Your task to perform on an android device: View the shopping cart on costco. Search for logitech g pro on costco, select the first entry, add it to the cart, then select checkout. Image 0: 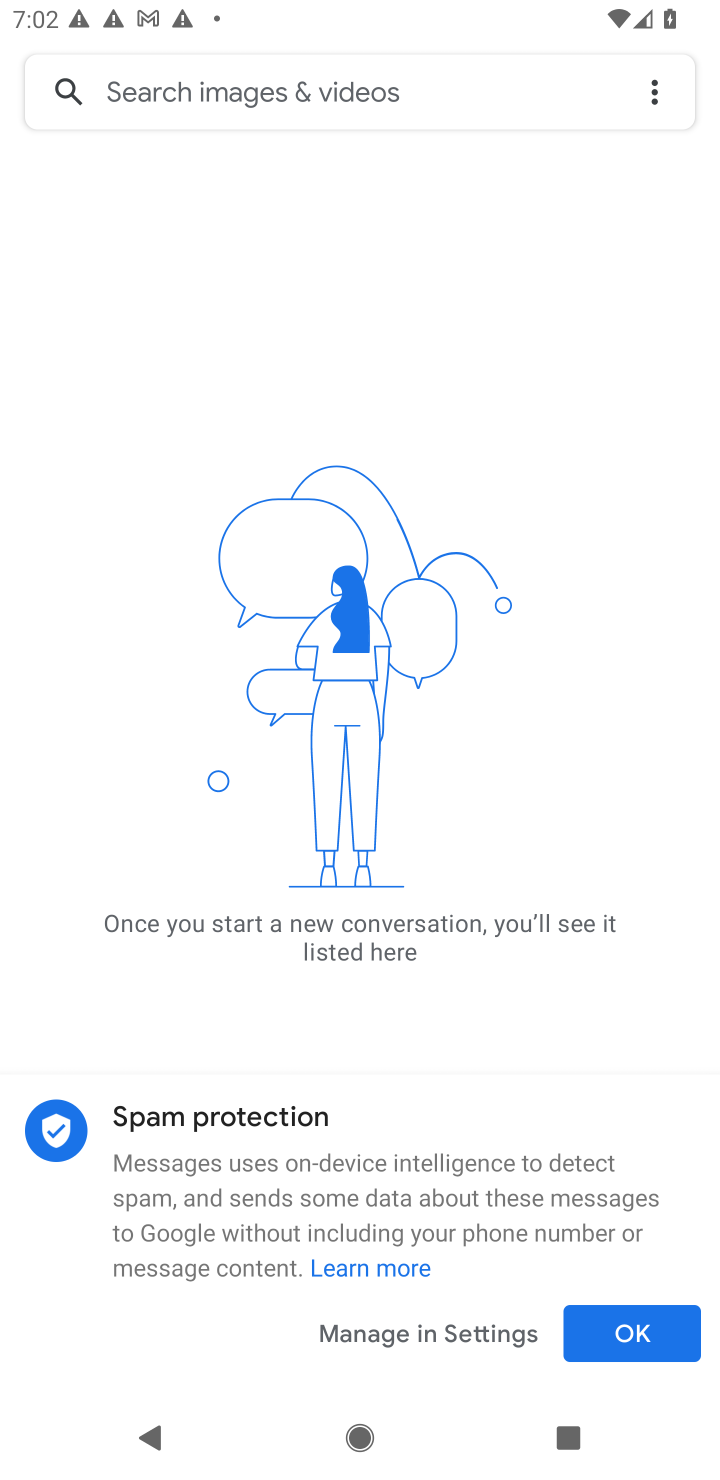
Step 0: press home button
Your task to perform on an android device: View the shopping cart on costco. Search for logitech g pro on costco, select the first entry, add it to the cart, then select checkout. Image 1: 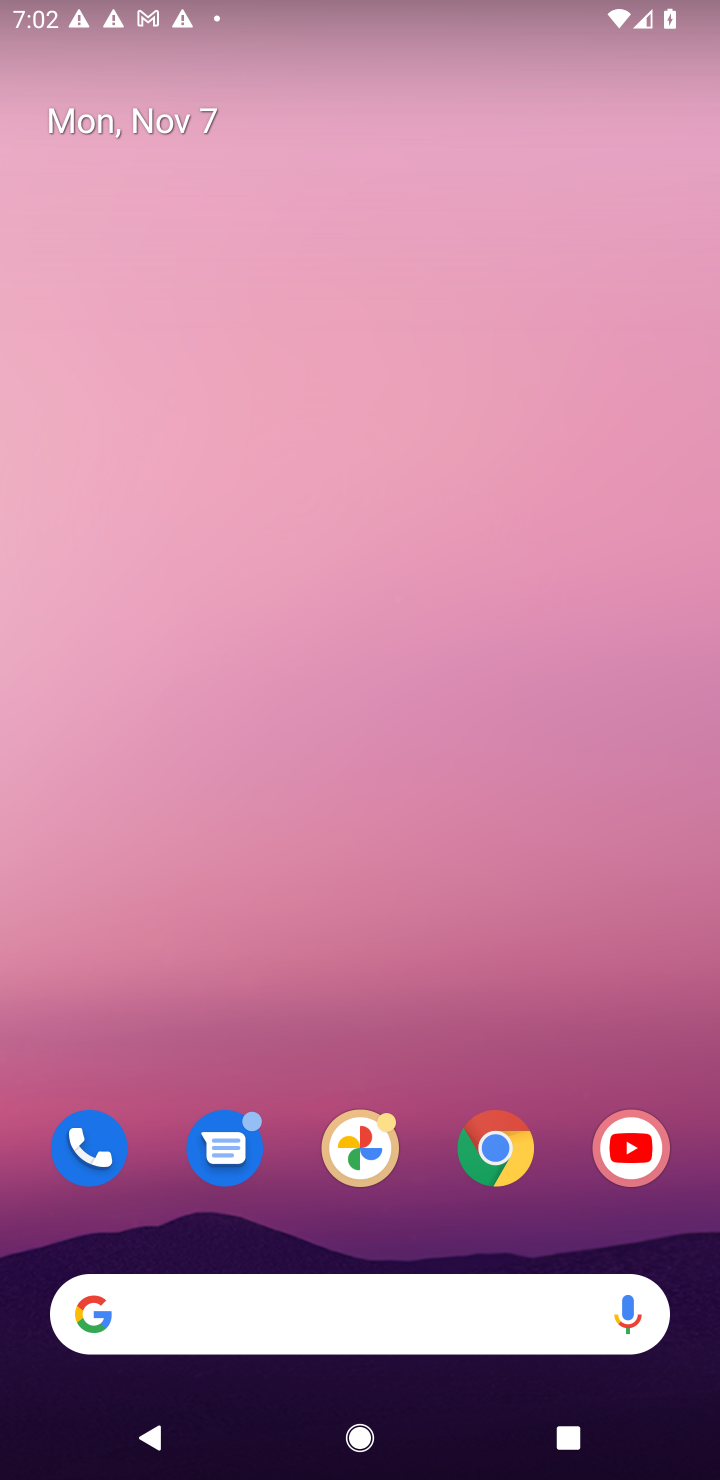
Step 1: click (500, 1152)
Your task to perform on an android device: View the shopping cart on costco. Search for logitech g pro on costco, select the first entry, add it to the cart, then select checkout. Image 2: 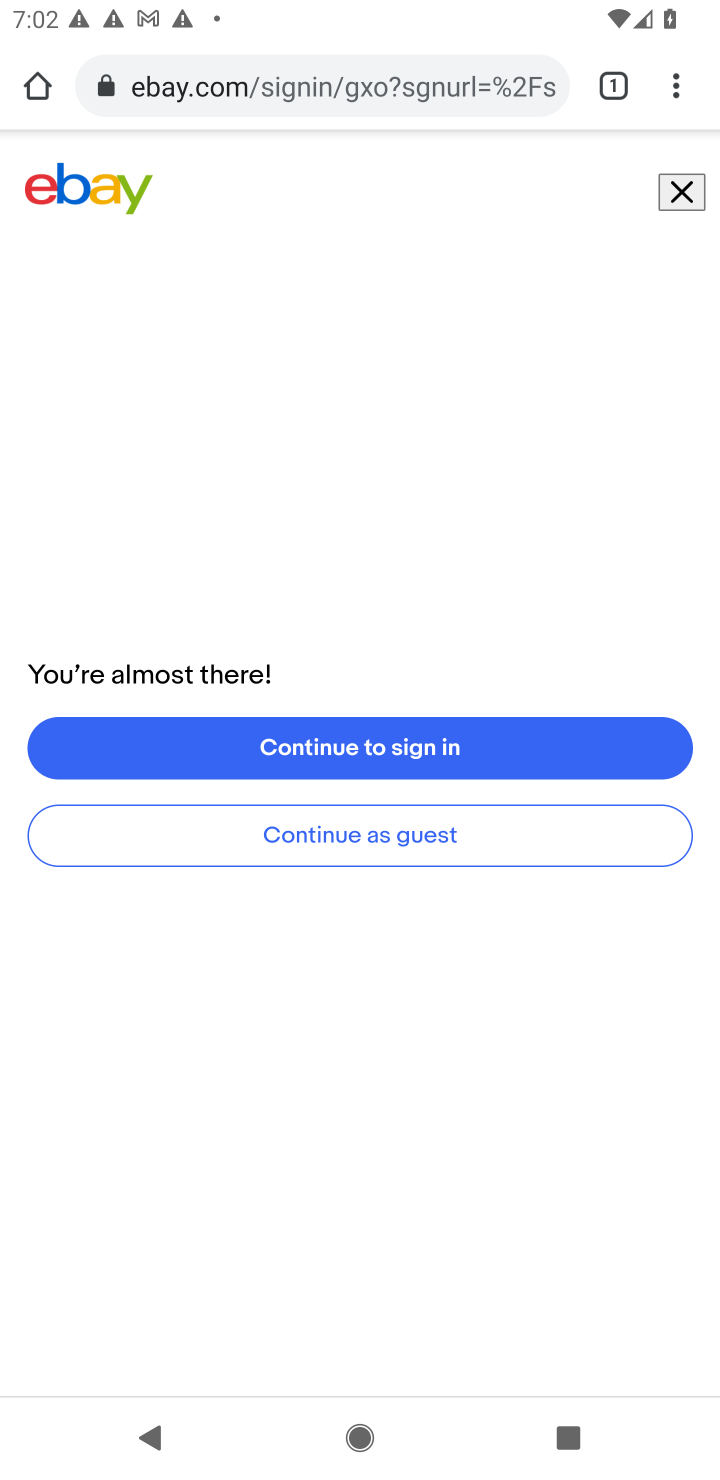
Step 2: click (398, 83)
Your task to perform on an android device: View the shopping cart on costco. Search for logitech g pro on costco, select the first entry, add it to the cart, then select checkout. Image 3: 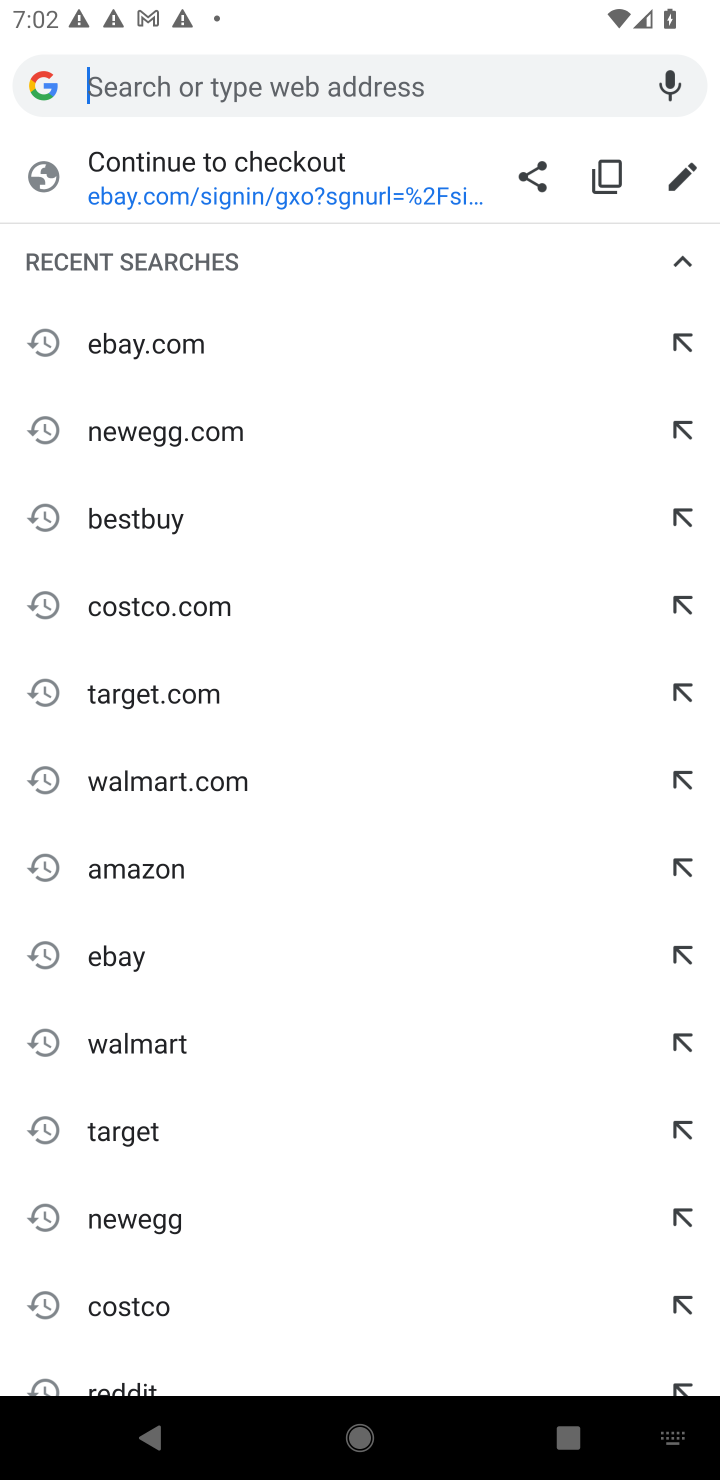
Step 3: click (202, 609)
Your task to perform on an android device: View the shopping cart on costco. Search for logitech g pro on costco, select the first entry, add it to the cart, then select checkout. Image 4: 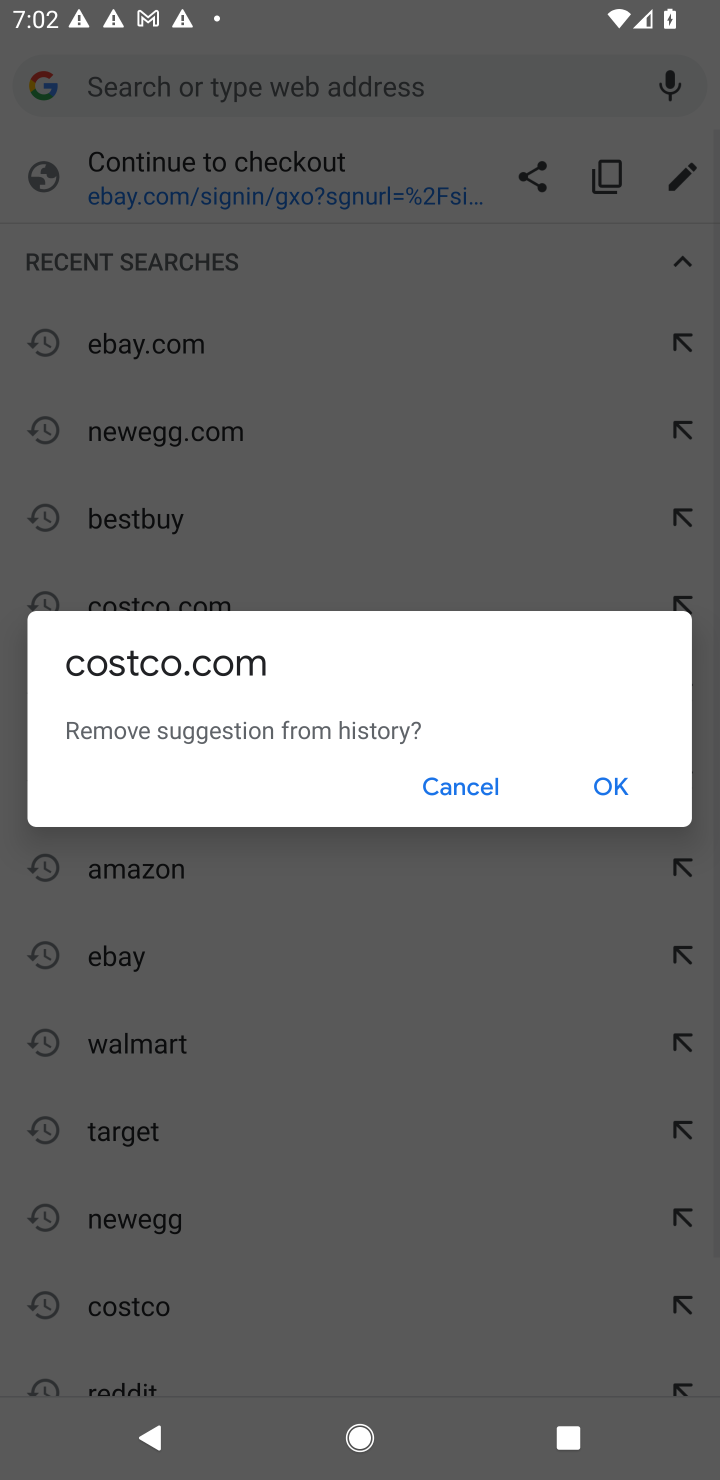
Step 4: click (604, 781)
Your task to perform on an android device: View the shopping cart on costco. Search for logitech g pro on costco, select the first entry, add it to the cart, then select checkout. Image 5: 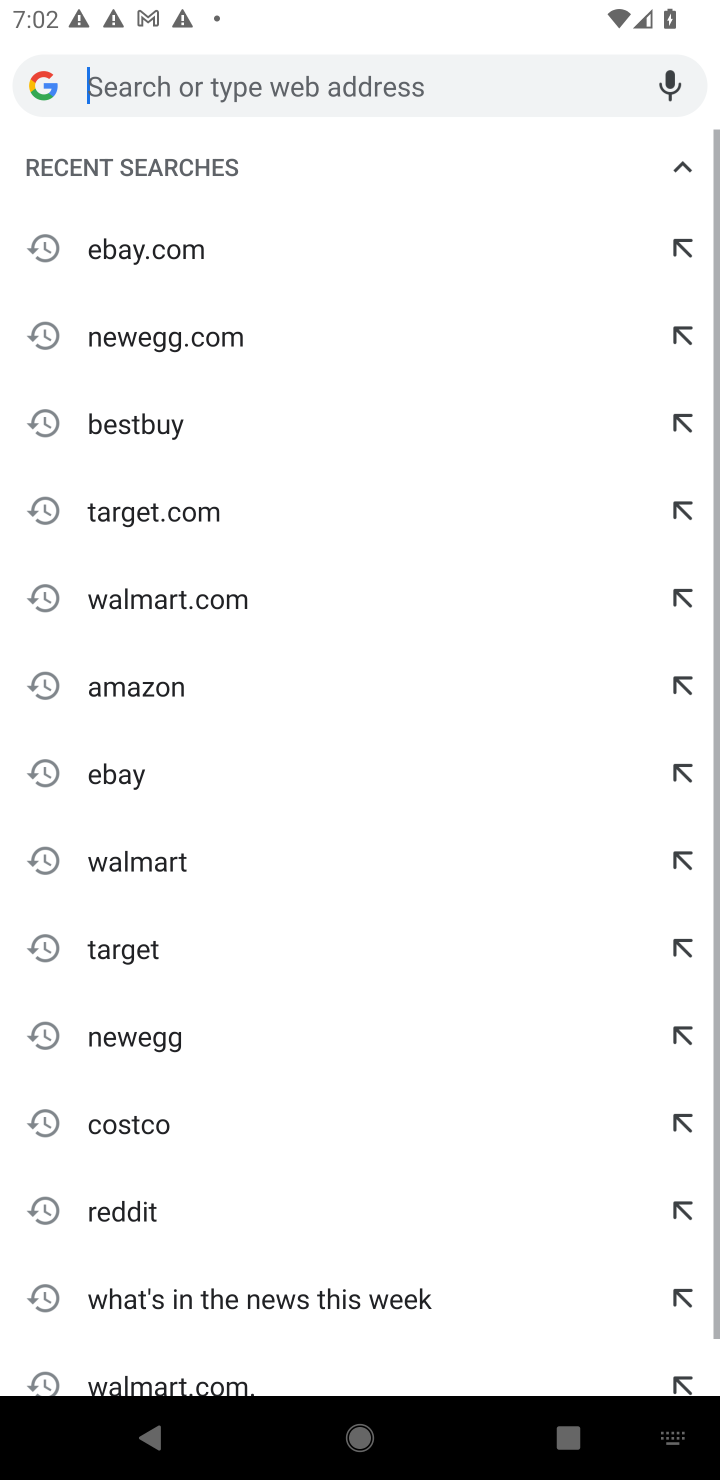
Step 5: click (424, 78)
Your task to perform on an android device: View the shopping cart on costco. Search for logitech g pro on costco, select the first entry, add it to the cart, then select checkout. Image 6: 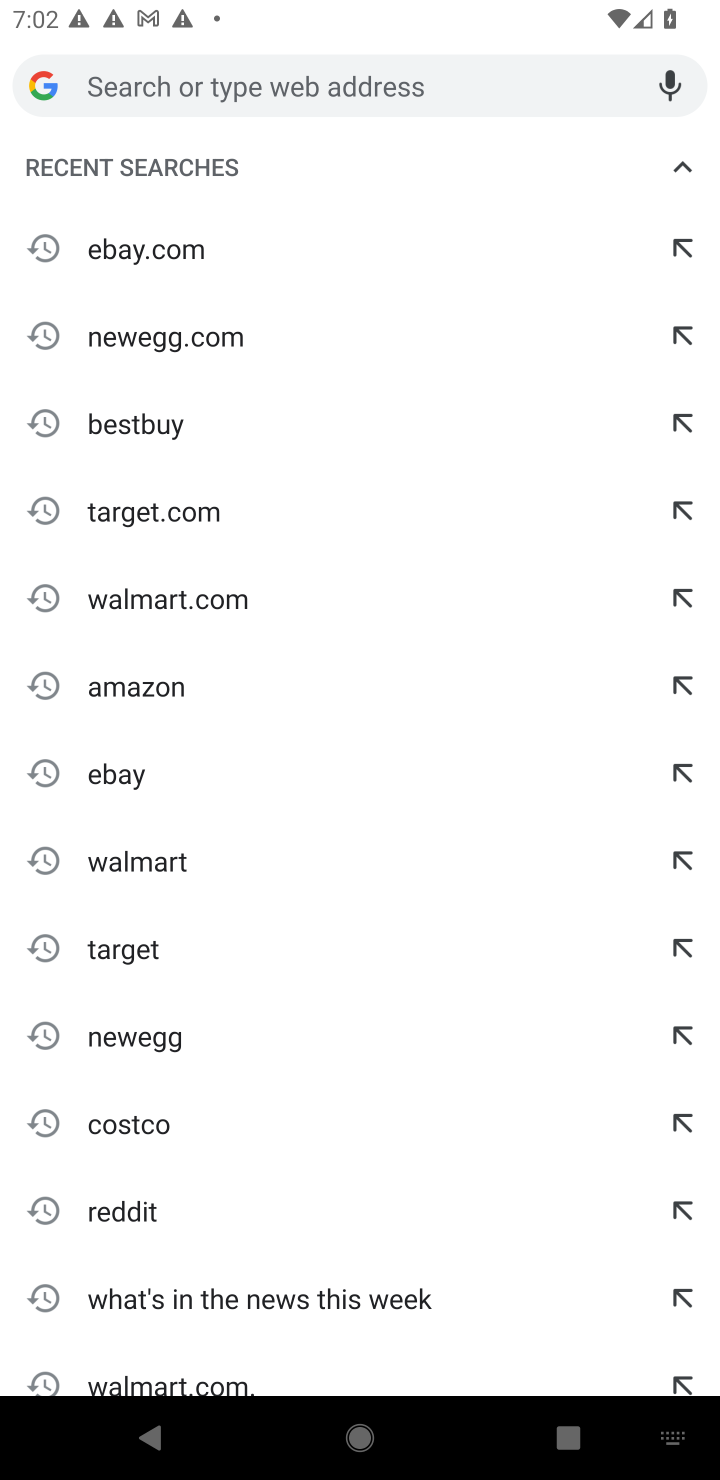
Step 6: press enter
Your task to perform on an android device: View the shopping cart on costco. Search for logitech g pro on costco, select the first entry, add it to the cart, then select checkout. Image 7: 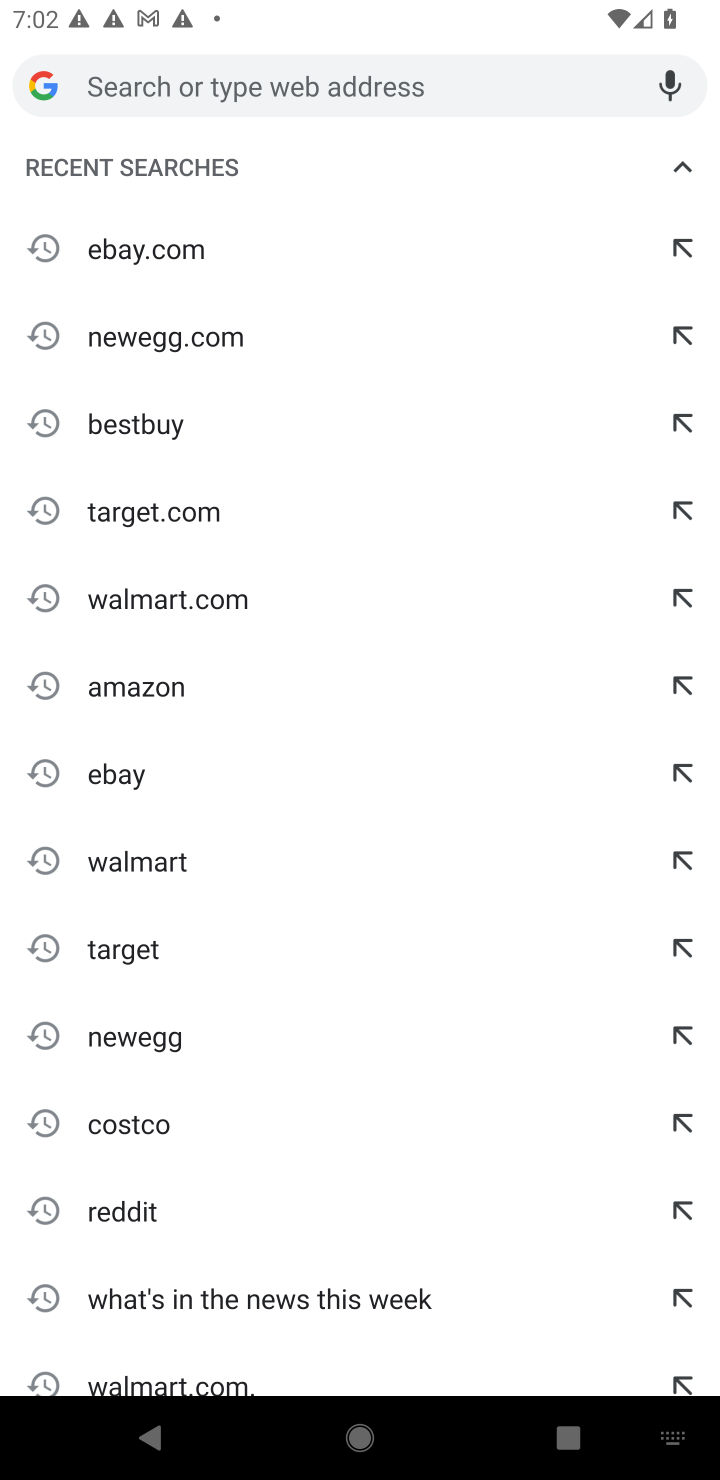
Step 7: type "costco"
Your task to perform on an android device: View the shopping cart on costco. Search for logitech g pro on costco, select the first entry, add it to the cart, then select checkout. Image 8: 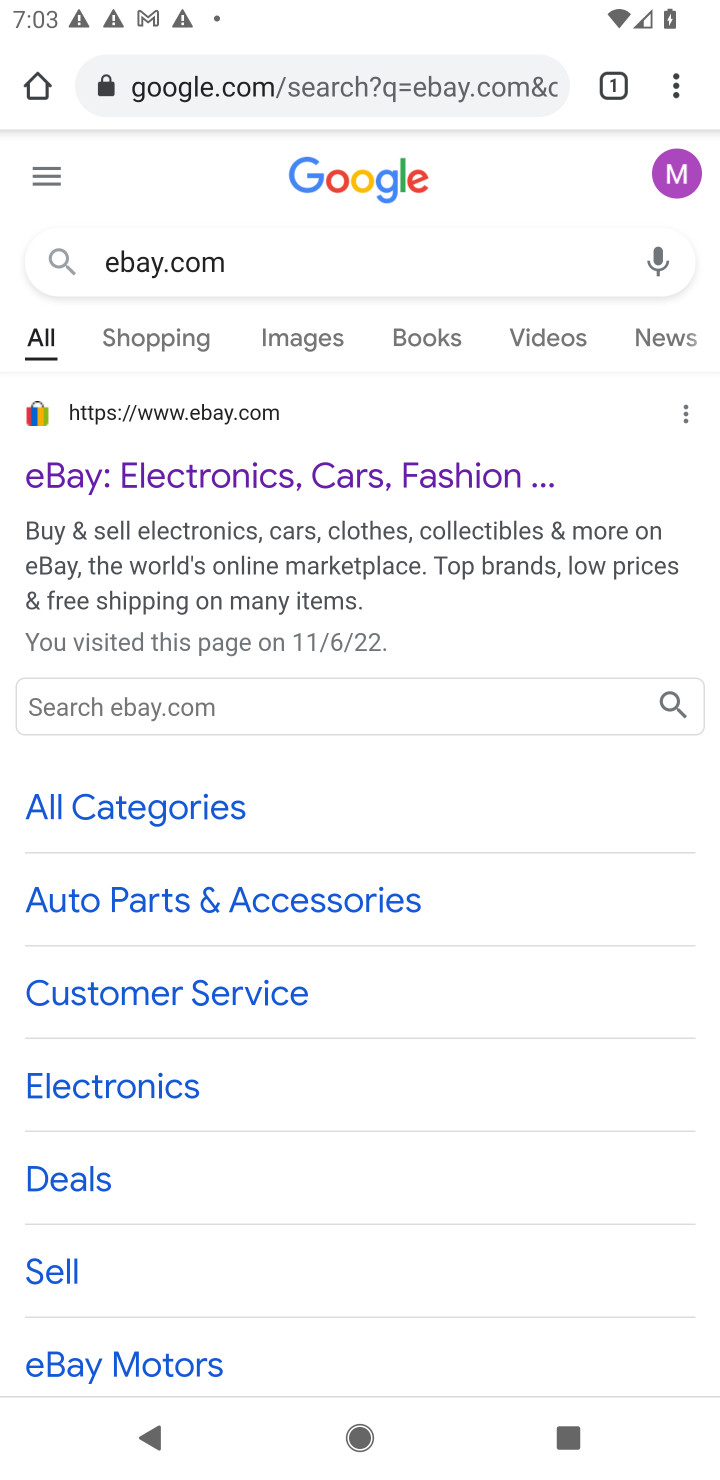
Step 8: click (313, 81)
Your task to perform on an android device: View the shopping cart on costco. Search for logitech g pro on costco, select the first entry, add it to the cart, then select checkout. Image 9: 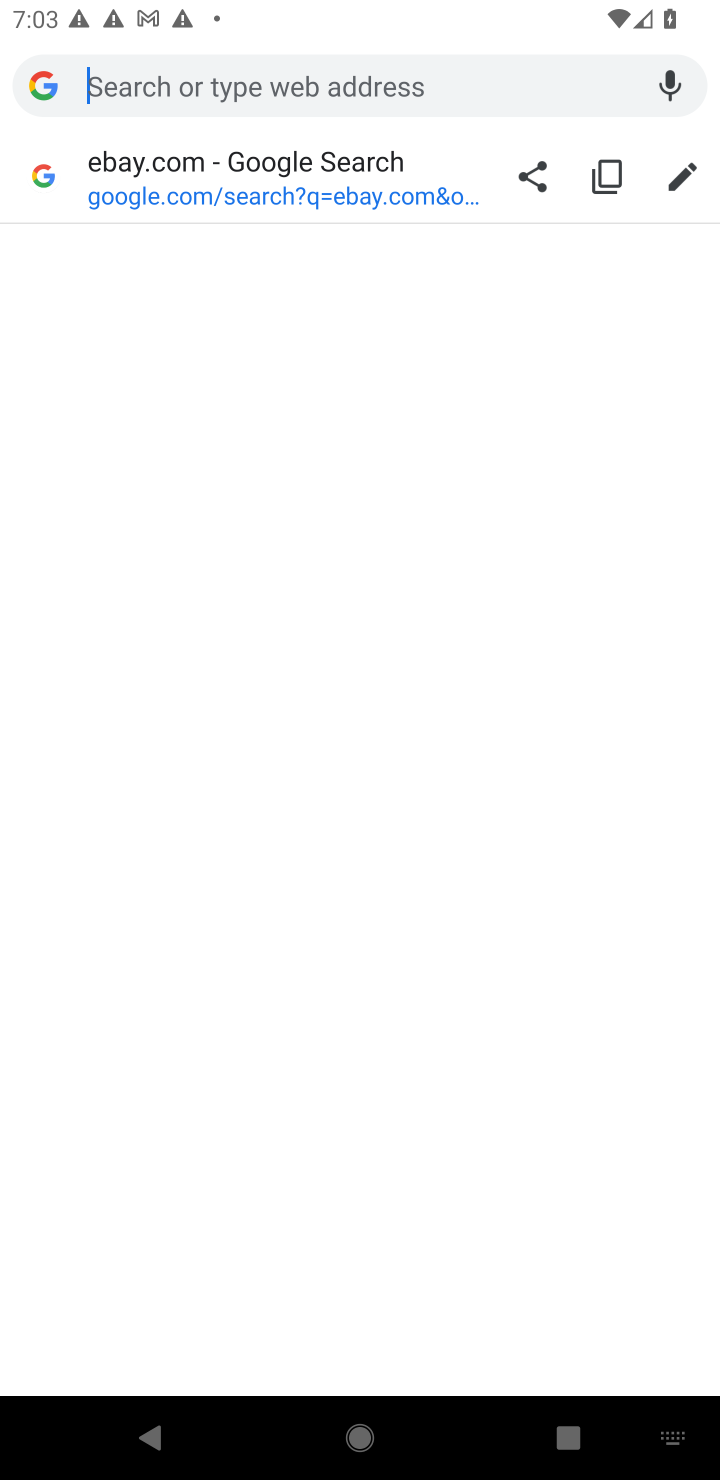
Step 9: type "costco"
Your task to perform on an android device: View the shopping cart on costco. Search for logitech g pro on costco, select the first entry, add it to the cart, then select checkout. Image 10: 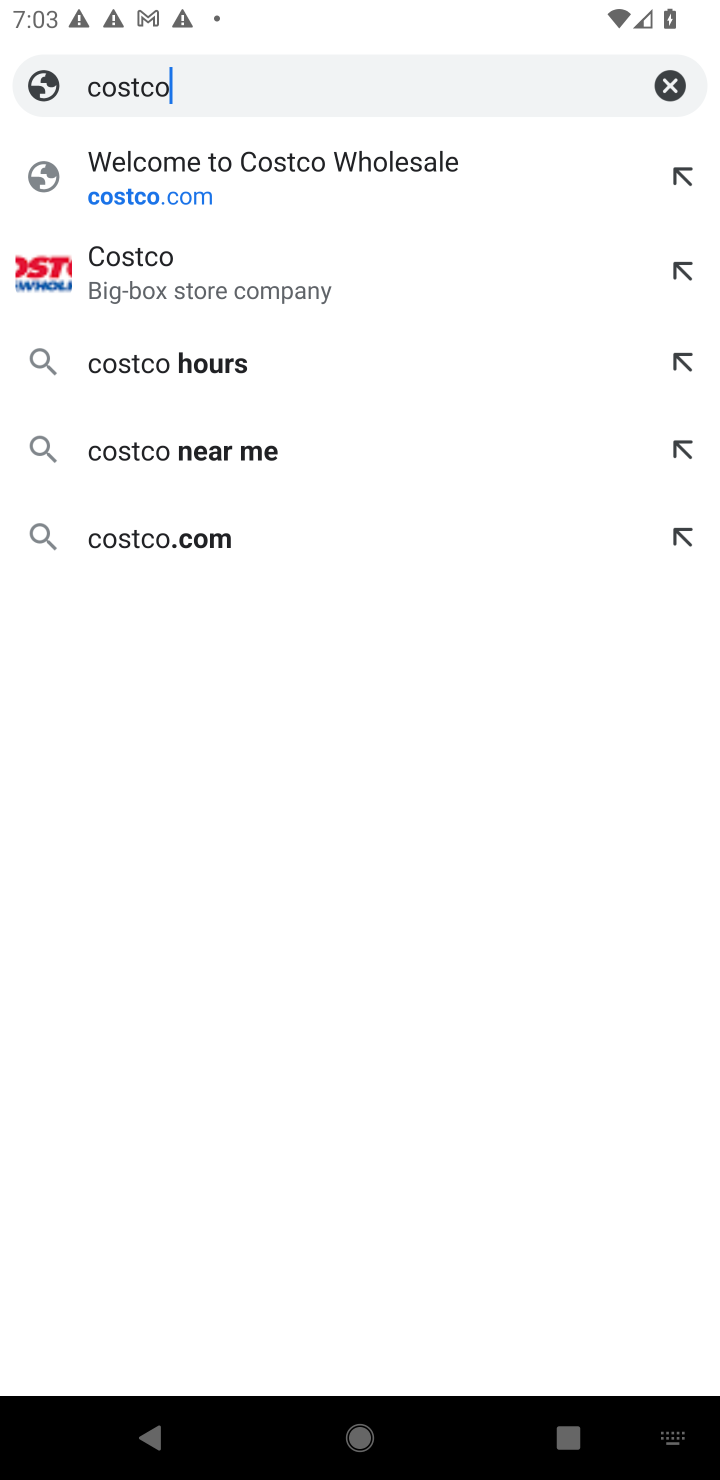
Step 10: click (179, 271)
Your task to perform on an android device: View the shopping cart on costco. Search for logitech g pro on costco, select the first entry, add it to the cart, then select checkout. Image 11: 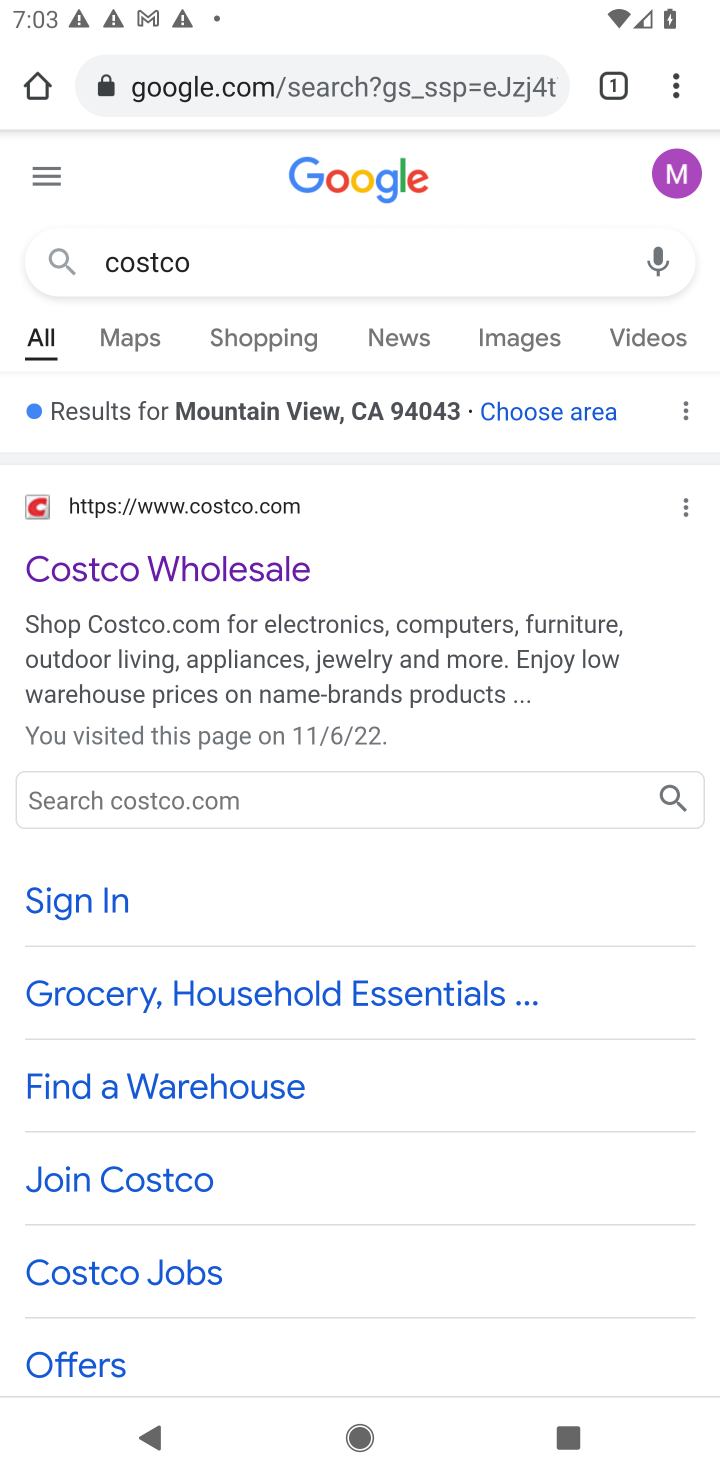
Step 11: click (234, 507)
Your task to perform on an android device: View the shopping cart on costco. Search for logitech g pro on costco, select the first entry, add it to the cart, then select checkout. Image 12: 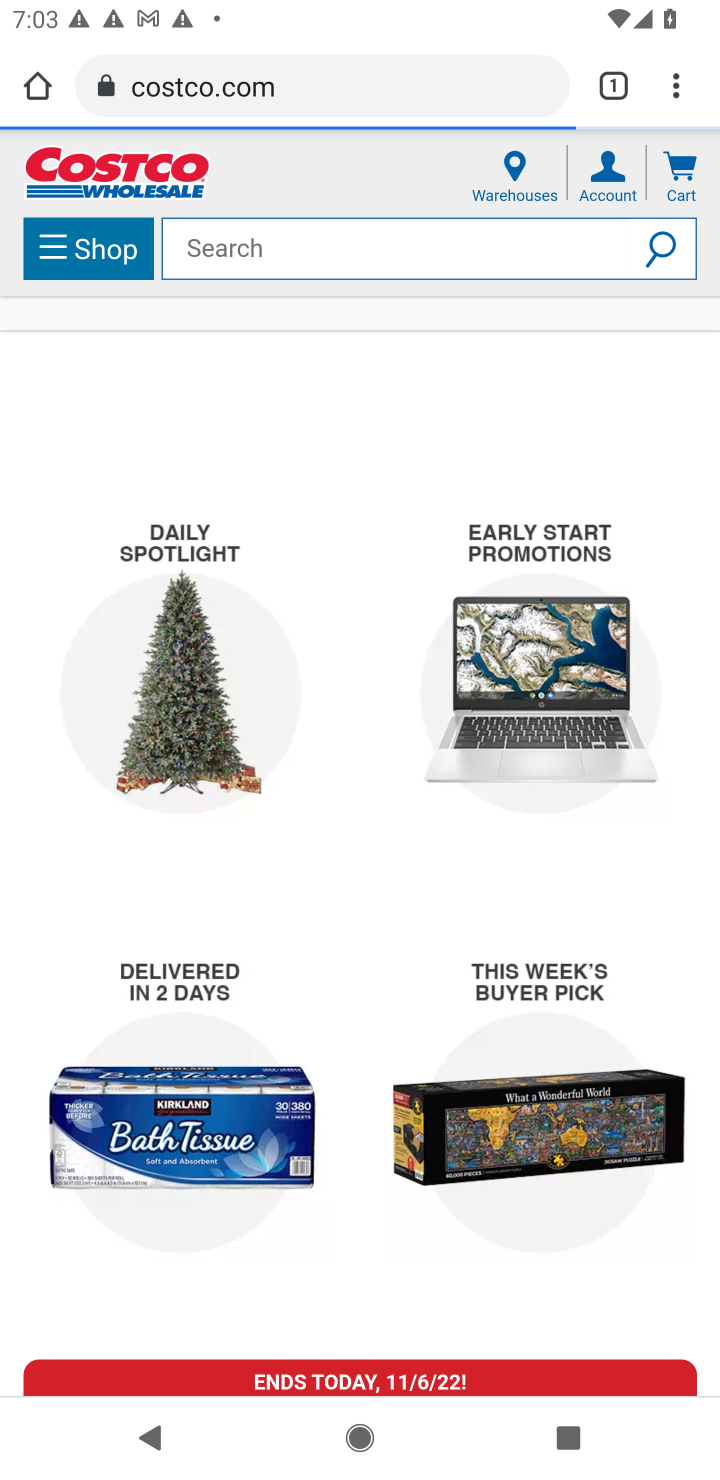
Step 12: click (673, 167)
Your task to perform on an android device: View the shopping cart on costco. Search for logitech g pro on costco, select the first entry, add it to the cart, then select checkout. Image 13: 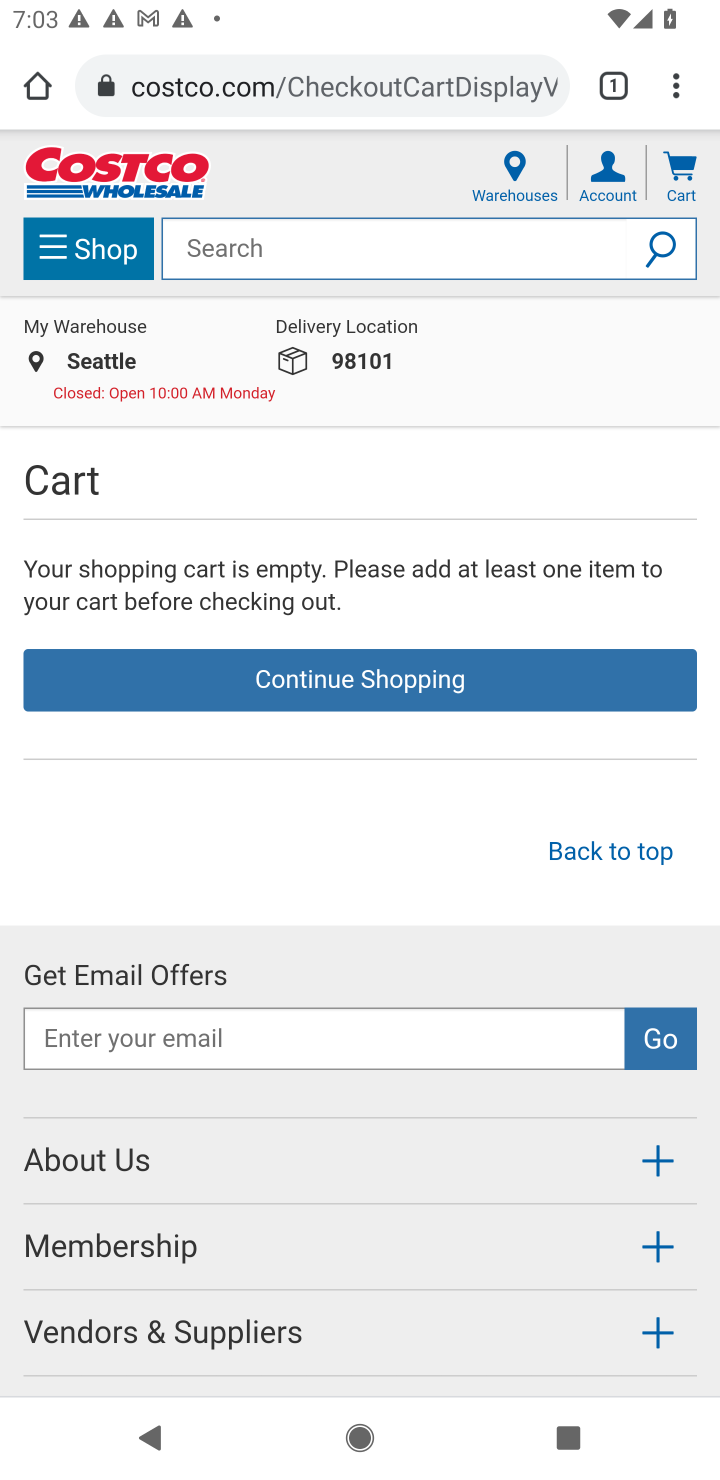
Step 13: click (462, 244)
Your task to perform on an android device: View the shopping cart on costco. Search for logitech g pro on costco, select the first entry, add it to the cart, then select checkout. Image 14: 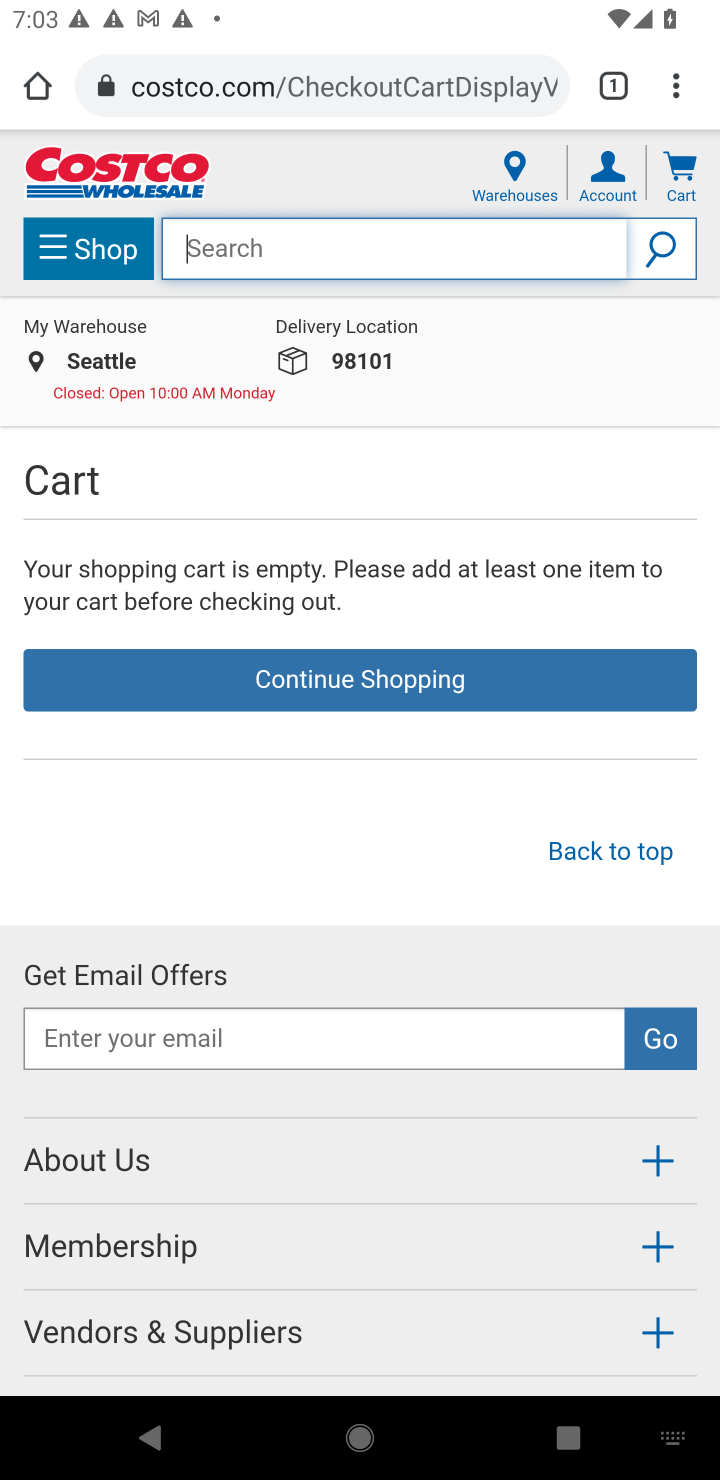
Step 14: type " logitech g pro"
Your task to perform on an android device: View the shopping cart on costco. Search for logitech g pro on costco, select the first entry, add it to the cart, then select checkout. Image 15: 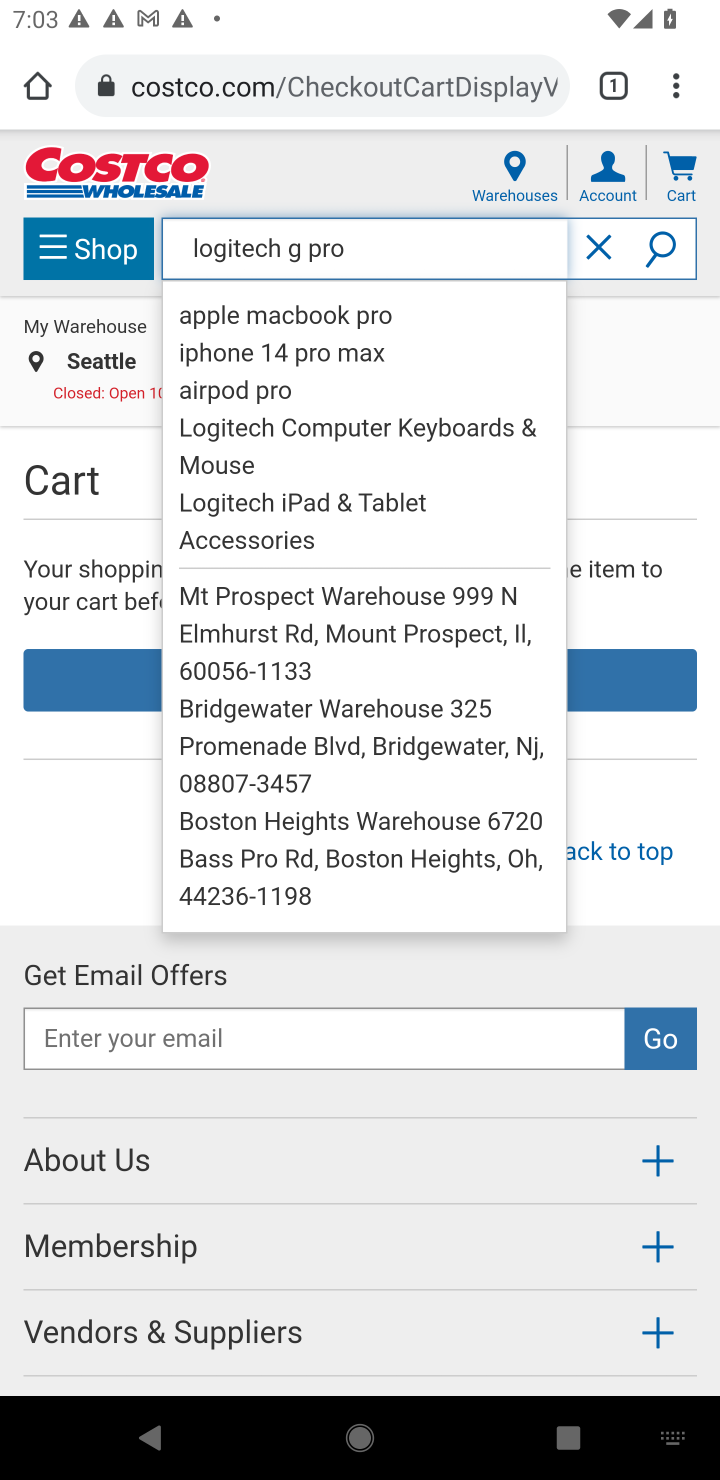
Step 15: click (20, 814)
Your task to perform on an android device: View the shopping cart on costco. Search for logitech g pro on costco, select the first entry, add it to the cart, then select checkout. Image 16: 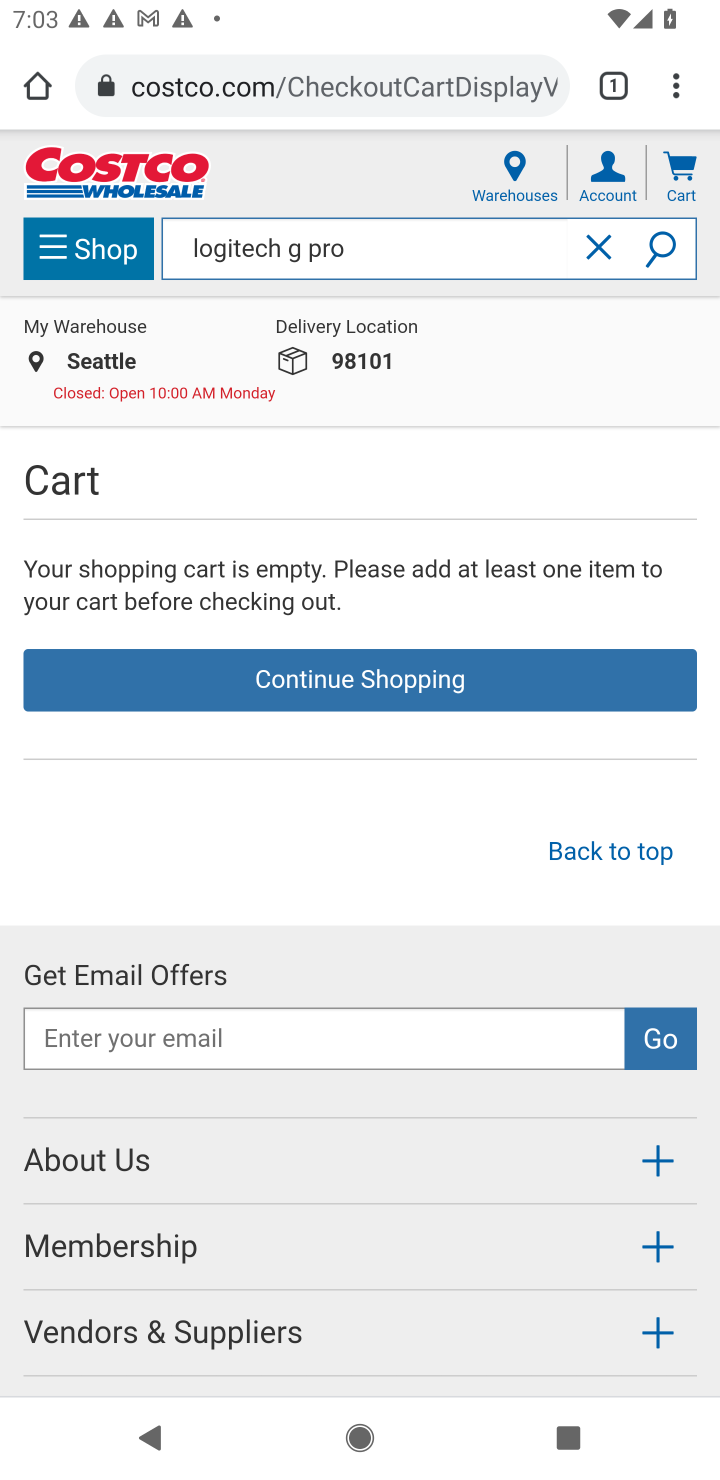
Step 16: task complete